Your task to perform on an android device: find which apps use the phone's location Image 0: 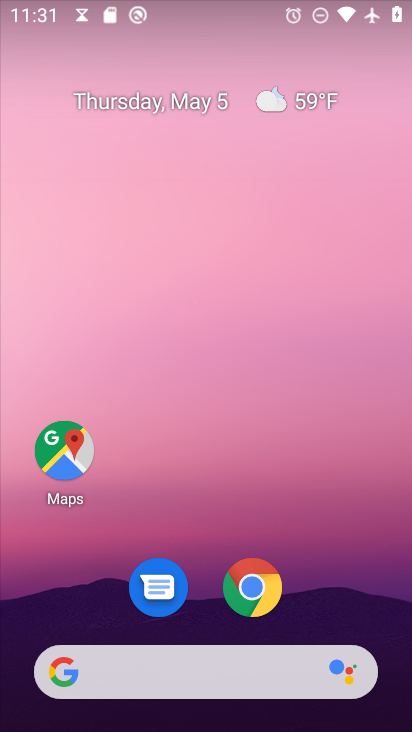
Step 0: drag from (322, 560) to (202, 1)
Your task to perform on an android device: find which apps use the phone's location Image 1: 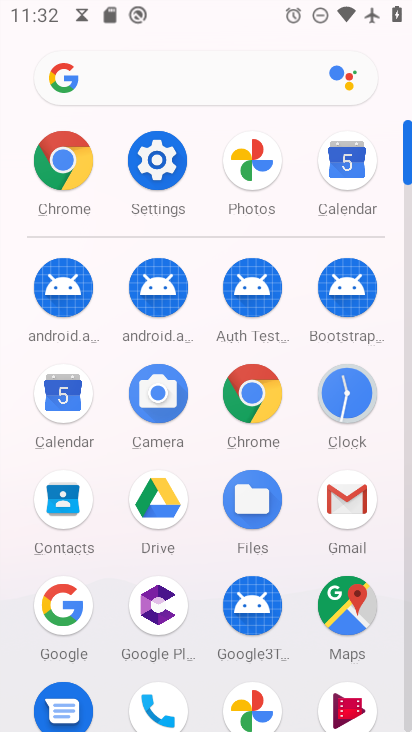
Step 1: drag from (11, 603) to (20, 299)
Your task to perform on an android device: find which apps use the phone's location Image 2: 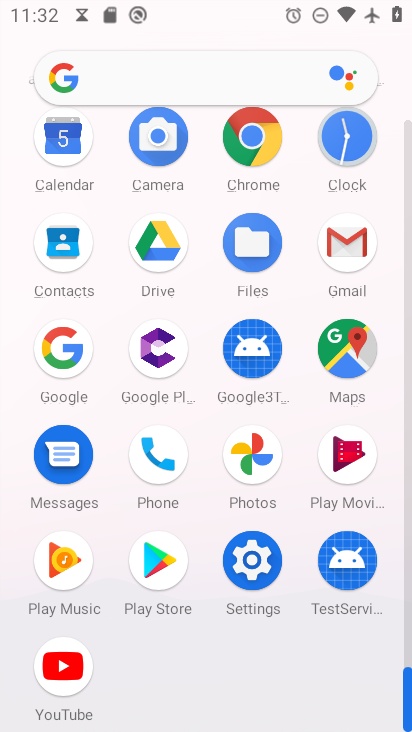
Step 2: click (249, 555)
Your task to perform on an android device: find which apps use the phone's location Image 3: 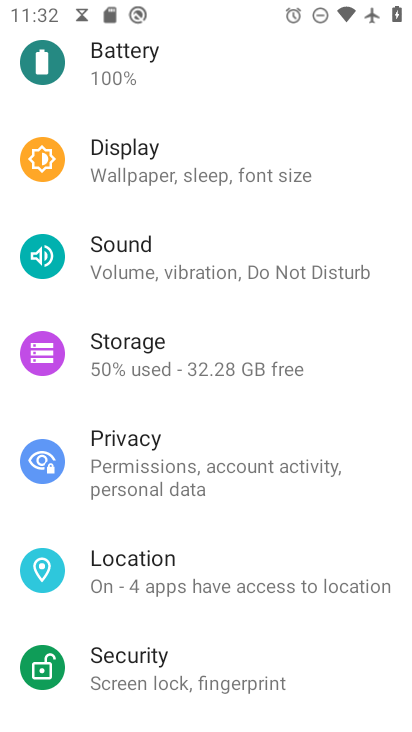
Step 3: click (170, 572)
Your task to perform on an android device: find which apps use the phone's location Image 4: 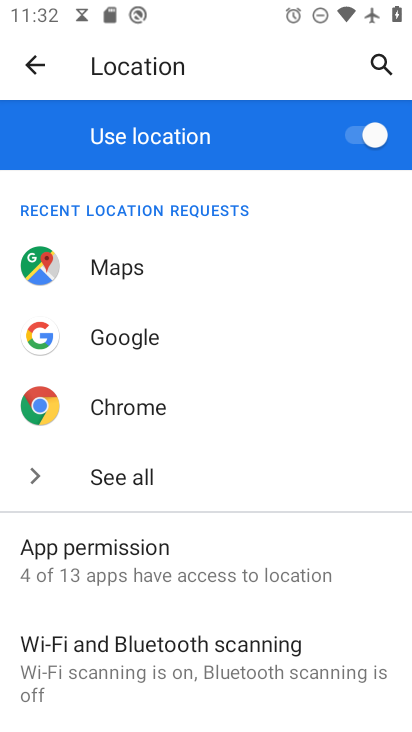
Step 4: drag from (325, 535) to (320, 152)
Your task to perform on an android device: find which apps use the phone's location Image 5: 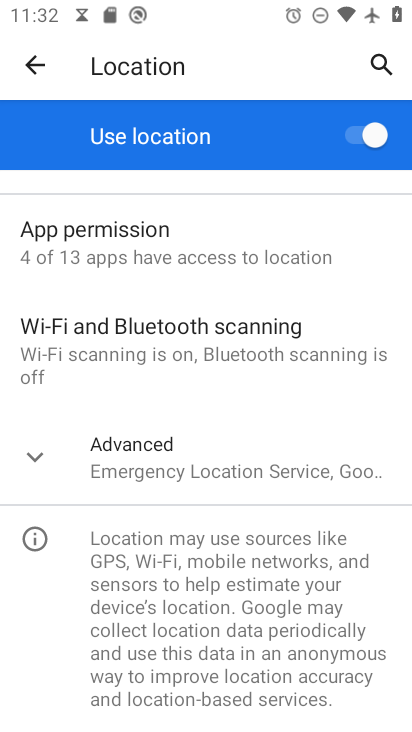
Step 5: click (37, 458)
Your task to perform on an android device: find which apps use the phone's location Image 6: 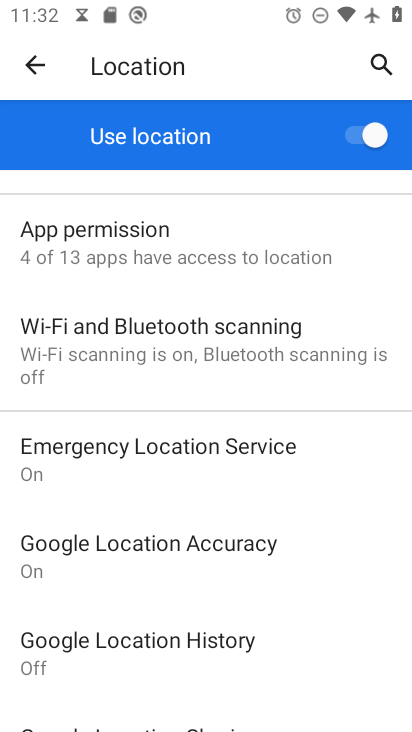
Step 6: click (203, 252)
Your task to perform on an android device: find which apps use the phone's location Image 7: 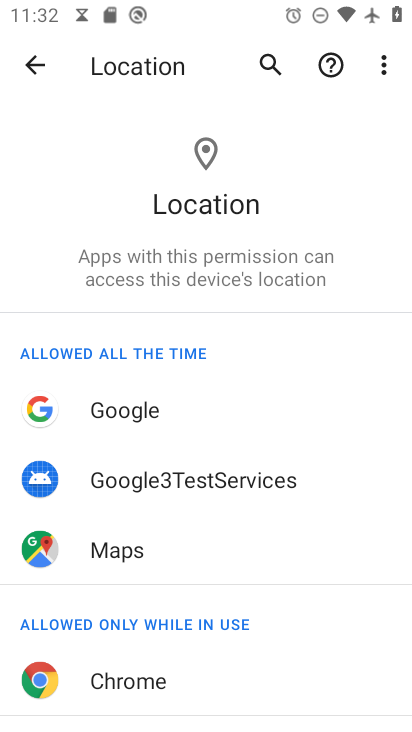
Step 7: task complete